Your task to perform on an android device: Show me productivity apps on the Play Store Image 0: 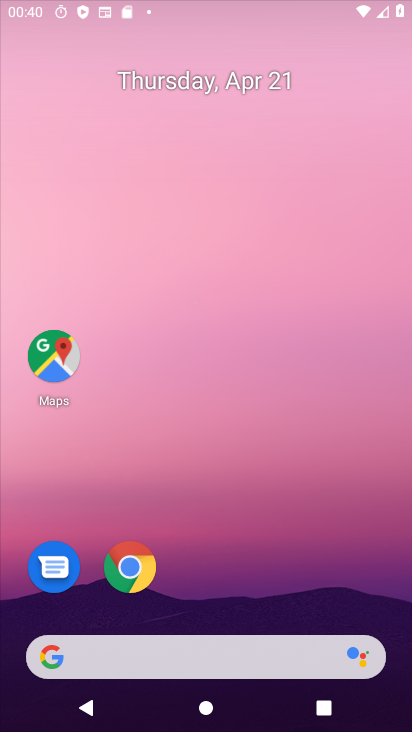
Step 0: drag from (273, 418) to (270, 210)
Your task to perform on an android device: Show me productivity apps on the Play Store Image 1: 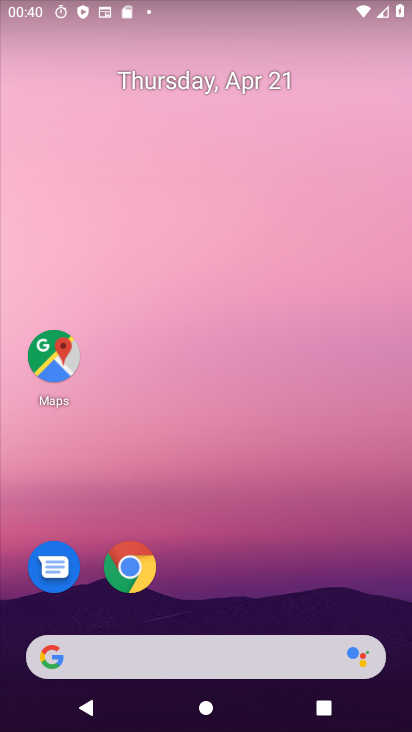
Step 1: drag from (268, 603) to (296, 213)
Your task to perform on an android device: Show me productivity apps on the Play Store Image 2: 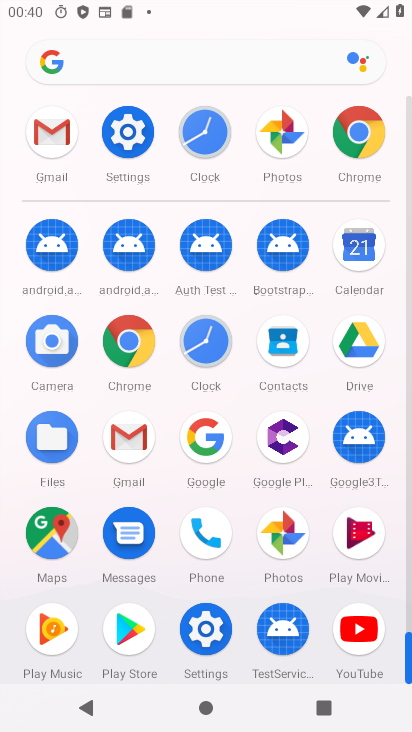
Step 2: click (128, 624)
Your task to perform on an android device: Show me productivity apps on the Play Store Image 3: 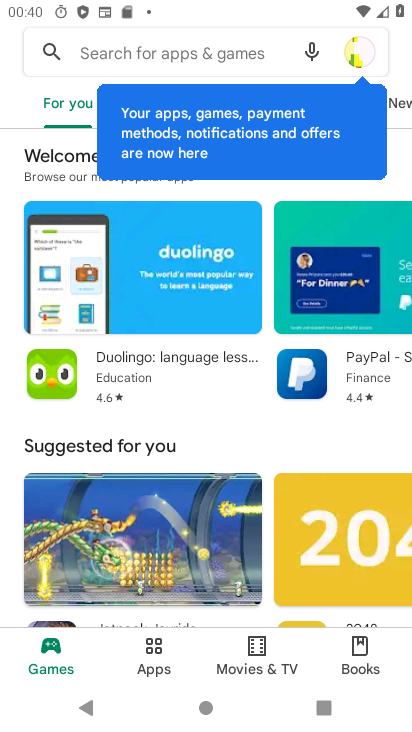
Step 3: click (45, 56)
Your task to perform on an android device: Show me productivity apps on the Play Store Image 4: 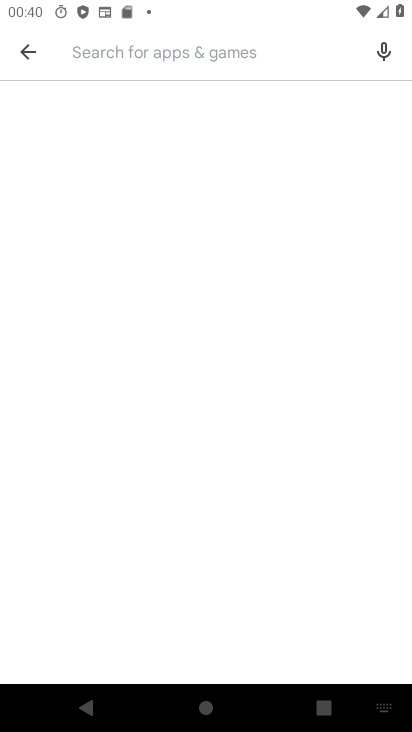
Step 4: click (25, 58)
Your task to perform on an android device: Show me productivity apps on the Play Store Image 5: 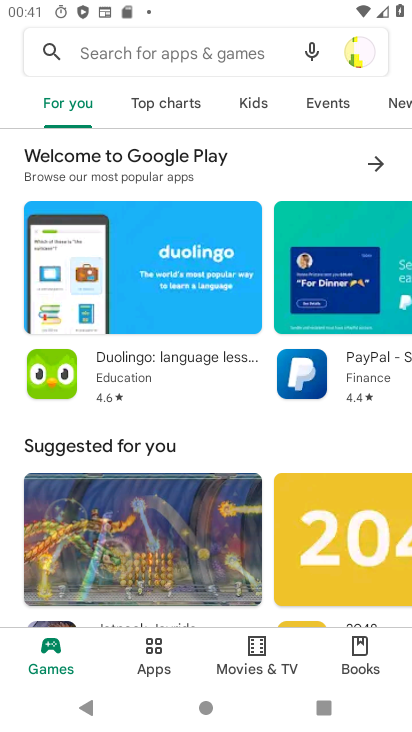
Step 5: drag from (189, 574) to (200, 148)
Your task to perform on an android device: Show me productivity apps on the Play Store Image 6: 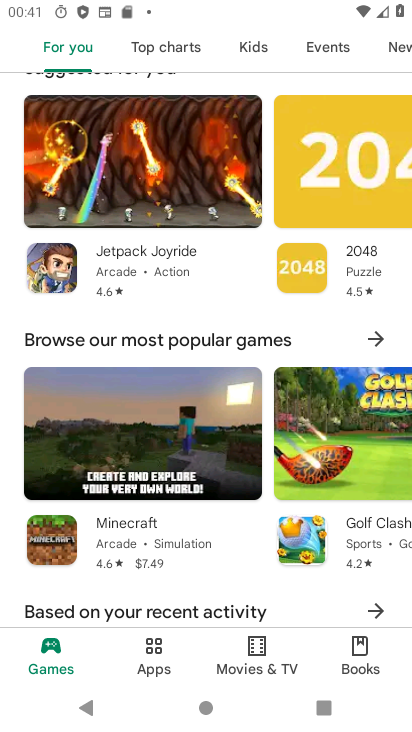
Step 6: click (155, 660)
Your task to perform on an android device: Show me productivity apps on the Play Store Image 7: 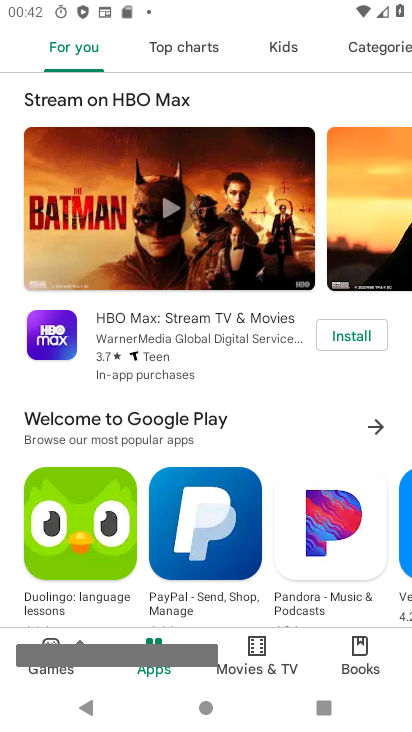
Step 7: click (151, 661)
Your task to perform on an android device: Show me productivity apps on the Play Store Image 8: 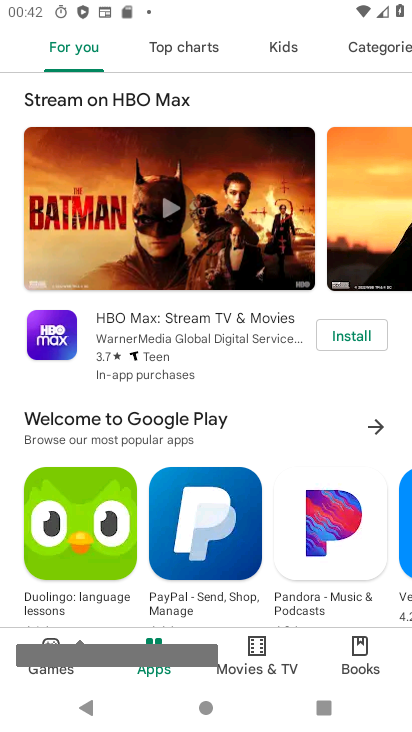
Step 8: click (258, 663)
Your task to perform on an android device: Show me productivity apps on the Play Store Image 9: 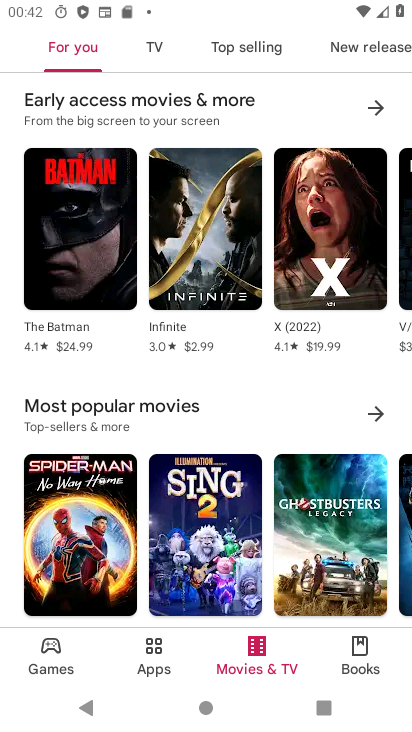
Step 9: click (155, 648)
Your task to perform on an android device: Show me productivity apps on the Play Store Image 10: 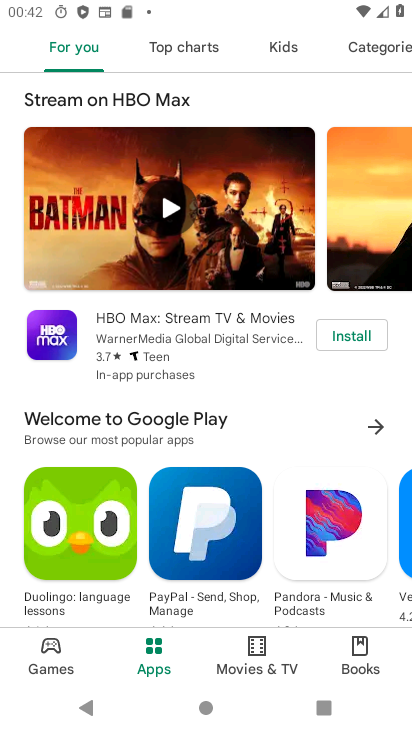
Step 10: task complete